Your task to perform on an android device: Go to Maps Image 0: 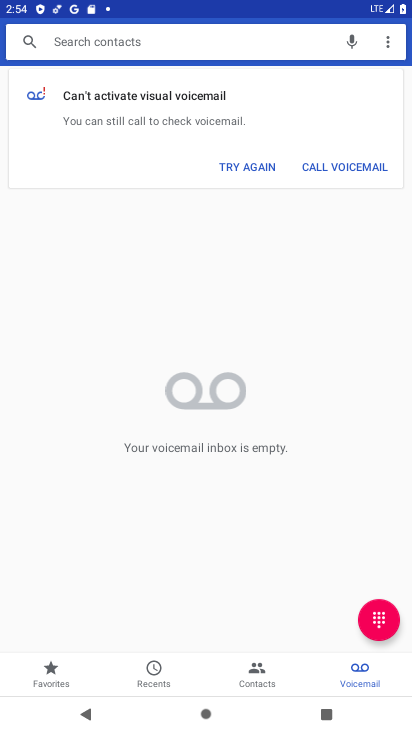
Step 0: press home button
Your task to perform on an android device: Go to Maps Image 1: 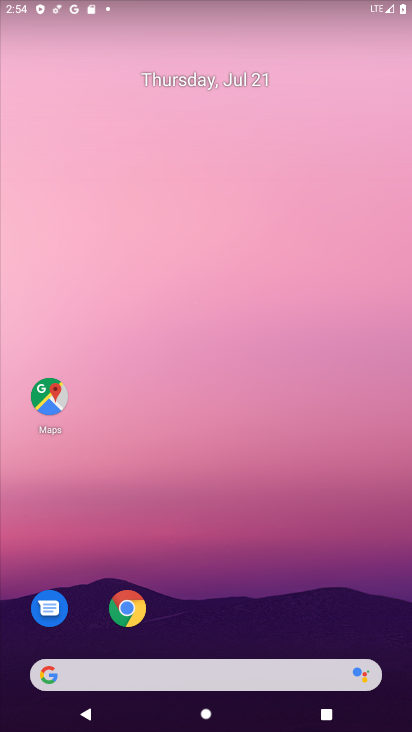
Step 1: click (56, 392)
Your task to perform on an android device: Go to Maps Image 2: 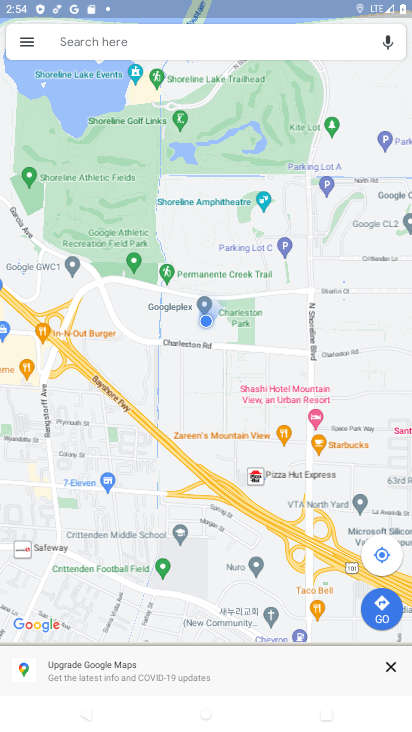
Step 2: task complete